Your task to perform on an android device: Open settings on Google Maps Image 0: 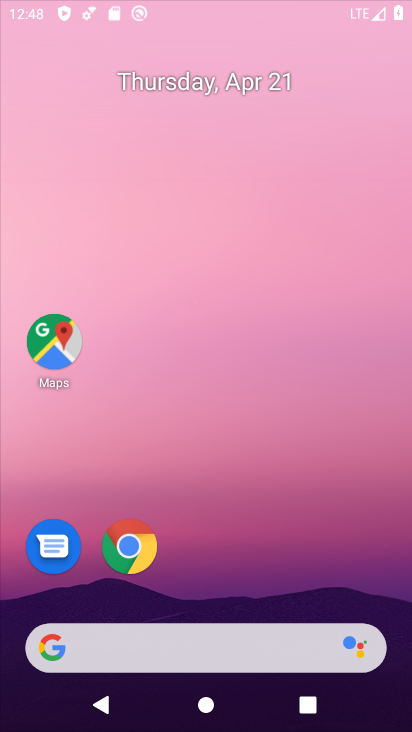
Step 0: click (61, 342)
Your task to perform on an android device: Open settings on Google Maps Image 1: 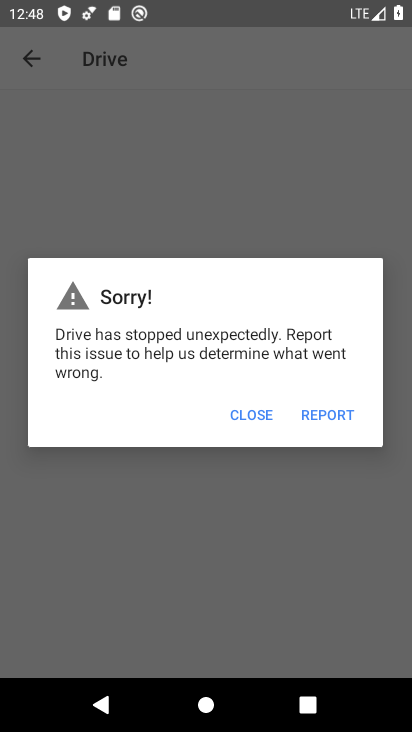
Step 1: press home button
Your task to perform on an android device: Open settings on Google Maps Image 2: 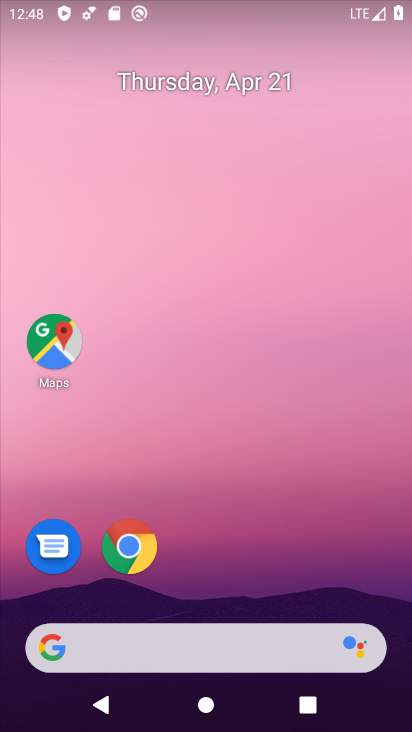
Step 2: click (63, 342)
Your task to perform on an android device: Open settings on Google Maps Image 3: 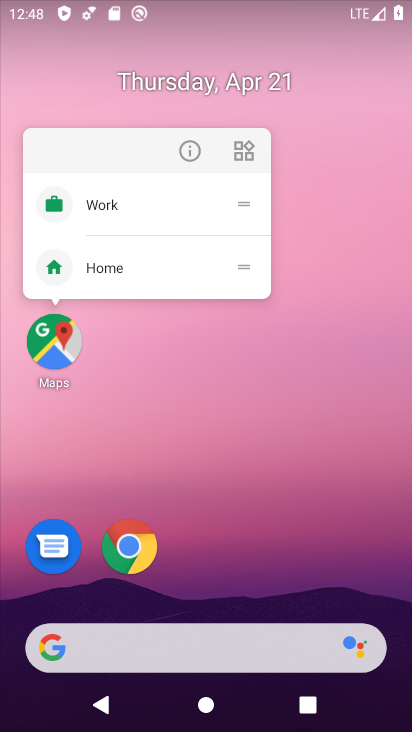
Step 3: click (51, 351)
Your task to perform on an android device: Open settings on Google Maps Image 4: 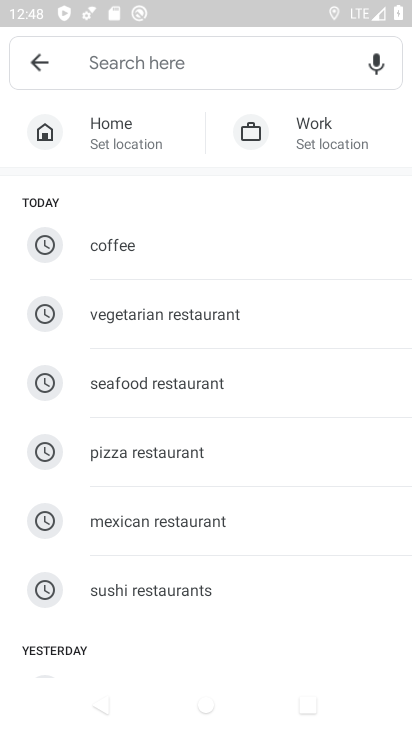
Step 4: press back button
Your task to perform on an android device: Open settings on Google Maps Image 5: 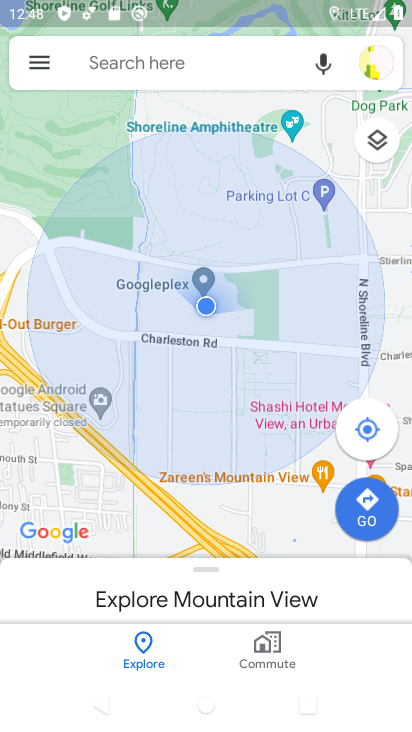
Step 5: click (46, 70)
Your task to perform on an android device: Open settings on Google Maps Image 6: 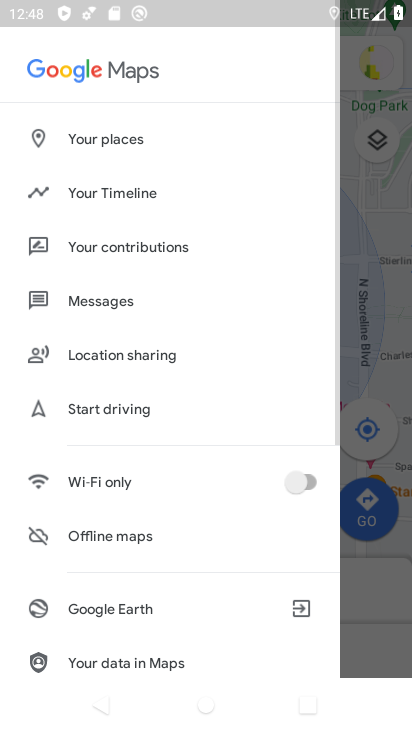
Step 6: drag from (131, 574) to (190, 95)
Your task to perform on an android device: Open settings on Google Maps Image 7: 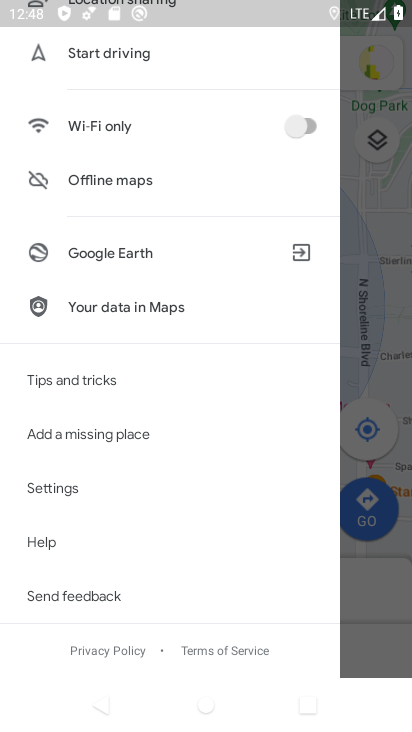
Step 7: click (98, 478)
Your task to perform on an android device: Open settings on Google Maps Image 8: 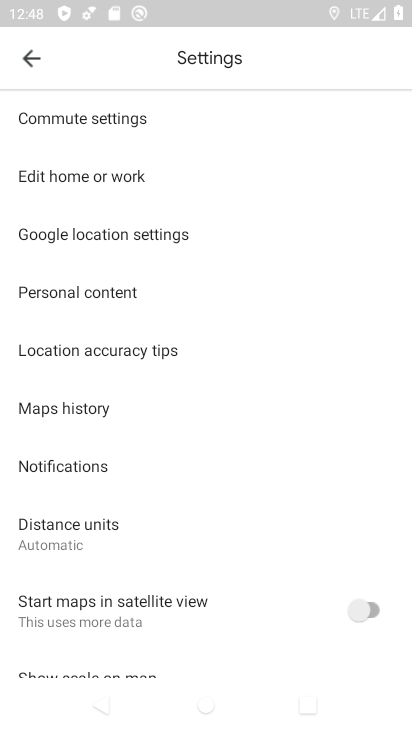
Step 8: task complete